Your task to perform on an android device: see creations saved in the google photos Image 0: 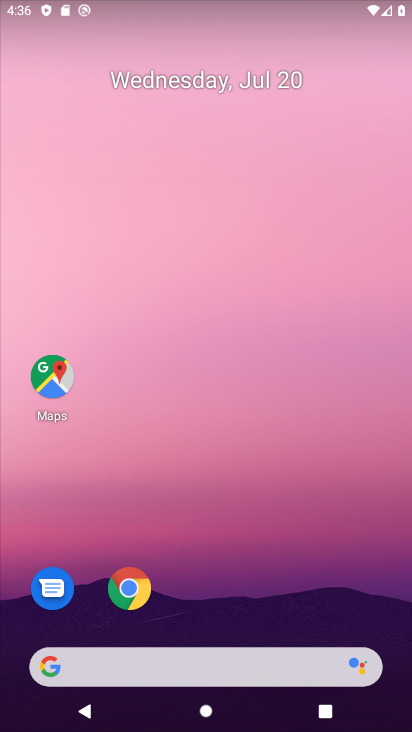
Step 0: drag from (286, 629) to (207, 97)
Your task to perform on an android device: see creations saved in the google photos Image 1: 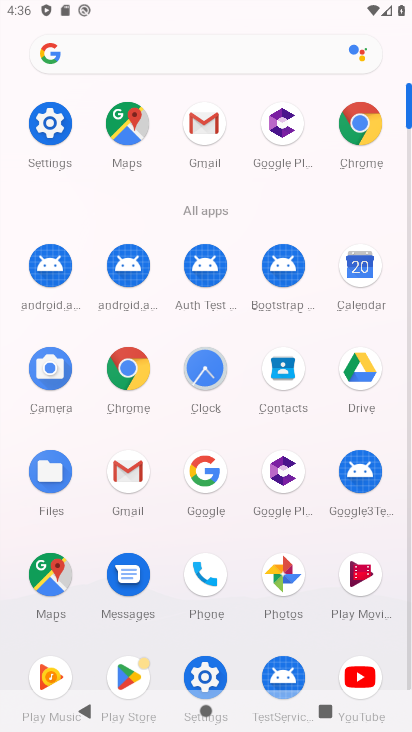
Step 1: click (282, 567)
Your task to perform on an android device: see creations saved in the google photos Image 2: 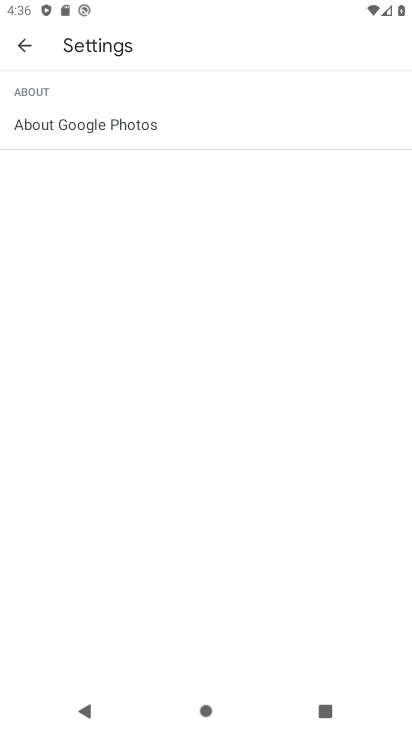
Step 2: click (24, 48)
Your task to perform on an android device: see creations saved in the google photos Image 3: 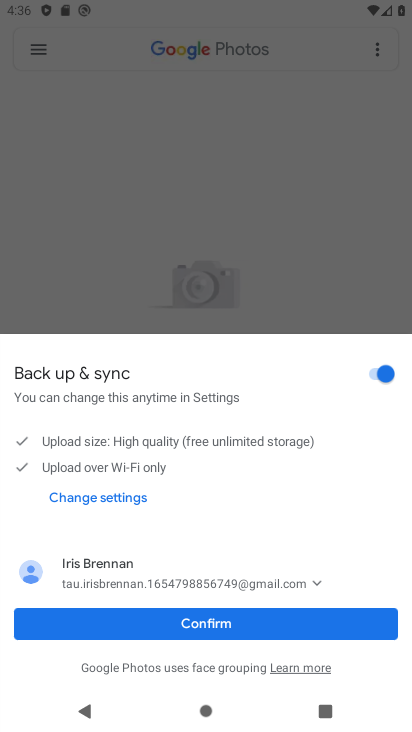
Step 3: click (278, 626)
Your task to perform on an android device: see creations saved in the google photos Image 4: 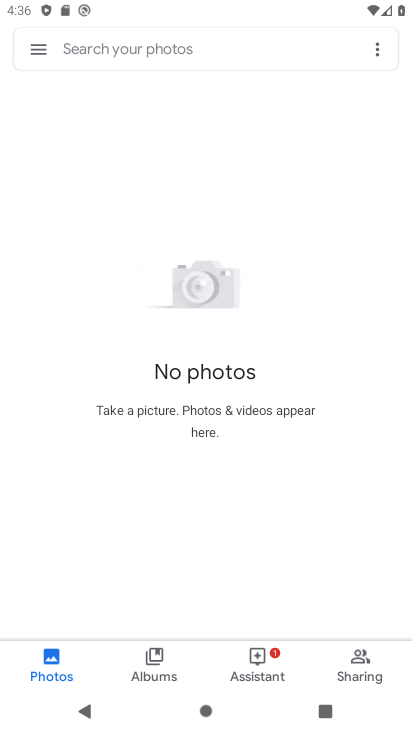
Step 4: click (144, 62)
Your task to perform on an android device: see creations saved in the google photos Image 5: 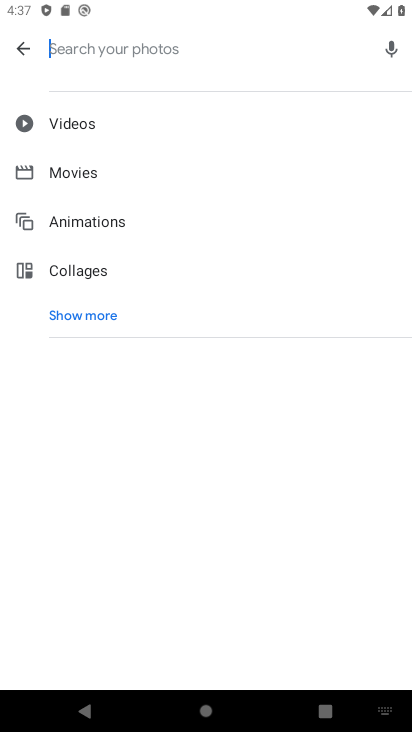
Step 5: click (101, 309)
Your task to perform on an android device: see creations saved in the google photos Image 6: 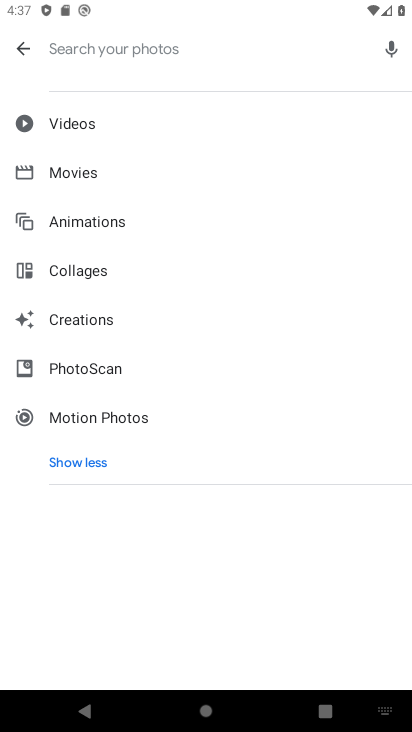
Step 6: click (101, 310)
Your task to perform on an android device: see creations saved in the google photos Image 7: 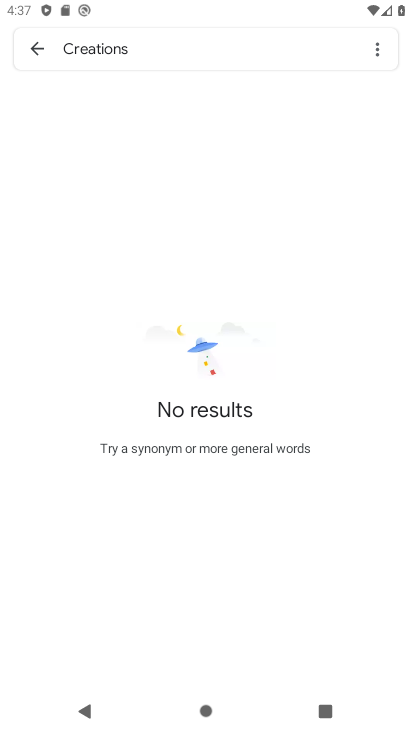
Step 7: task complete